Your task to perform on an android device: Open Chrome and go to the settings page Image 0: 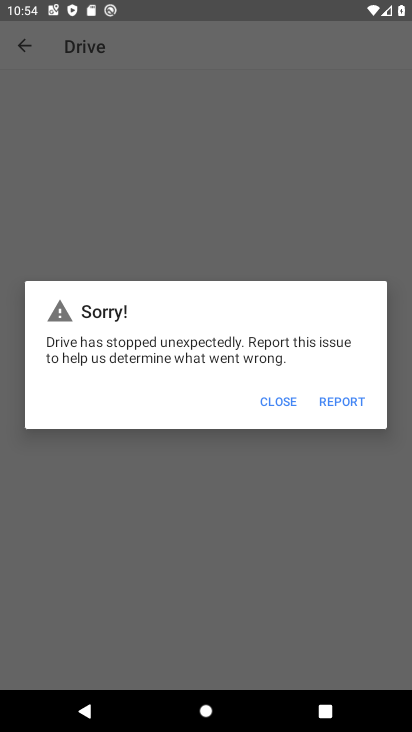
Step 0: press home button
Your task to perform on an android device: Open Chrome and go to the settings page Image 1: 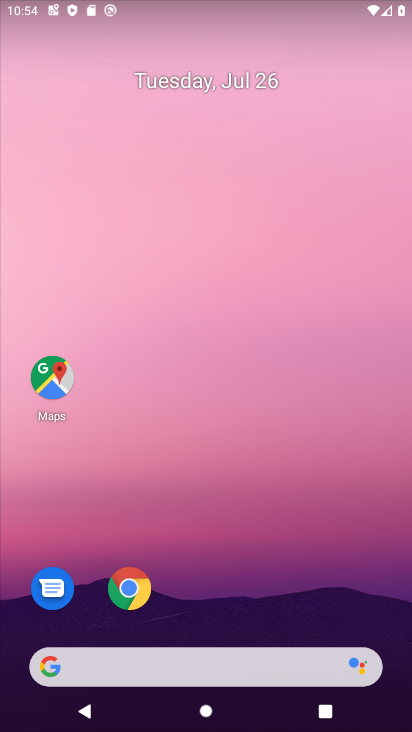
Step 1: click (122, 594)
Your task to perform on an android device: Open Chrome and go to the settings page Image 2: 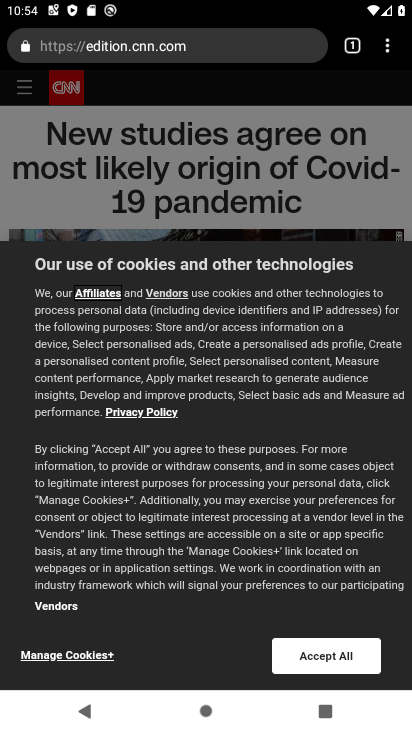
Step 2: click (392, 54)
Your task to perform on an android device: Open Chrome and go to the settings page Image 3: 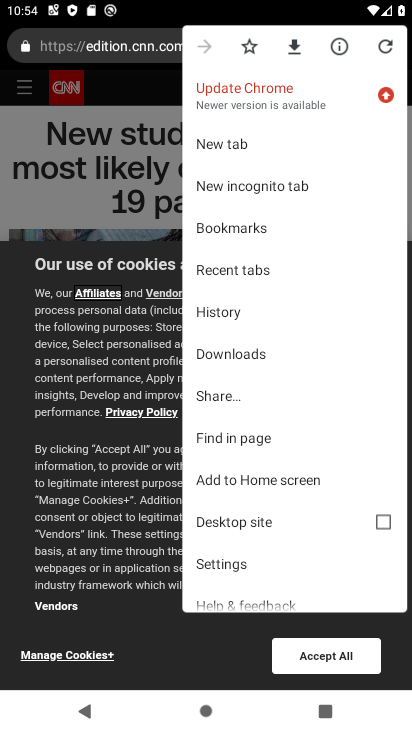
Step 3: click (222, 564)
Your task to perform on an android device: Open Chrome and go to the settings page Image 4: 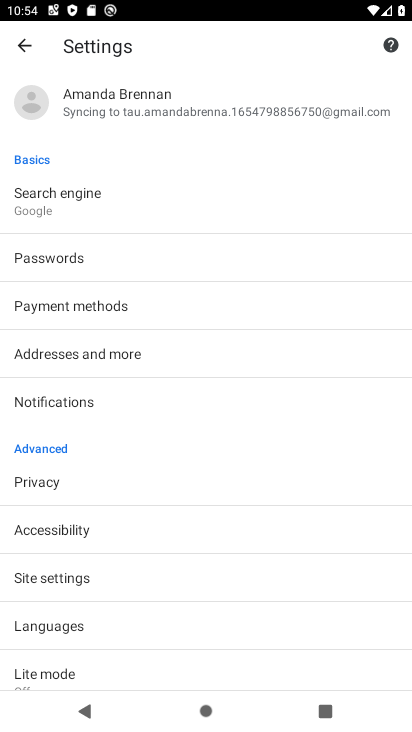
Step 4: task complete